Your task to perform on an android device: Open the SMS app Image 0: 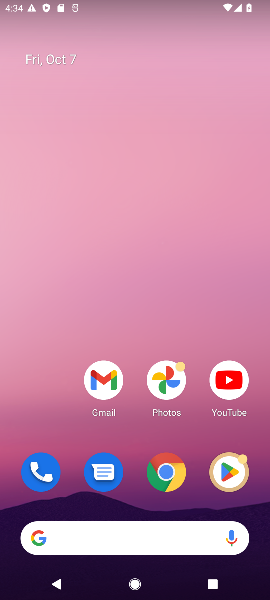
Step 0: click (102, 473)
Your task to perform on an android device: Open the SMS app Image 1: 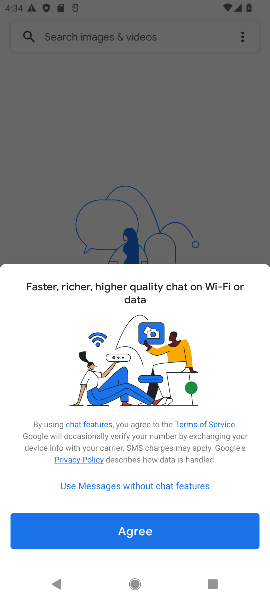
Step 1: click (127, 536)
Your task to perform on an android device: Open the SMS app Image 2: 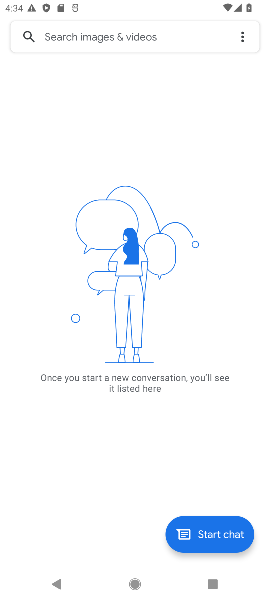
Step 2: click (132, 585)
Your task to perform on an android device: Open the SMS app Image 3: 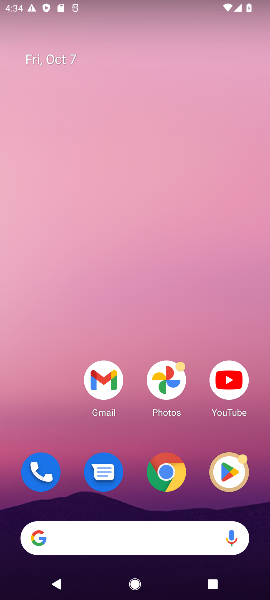
Step 3: click (236, 475)
Your task to perform on an android device: Open the SMS app Image 4: 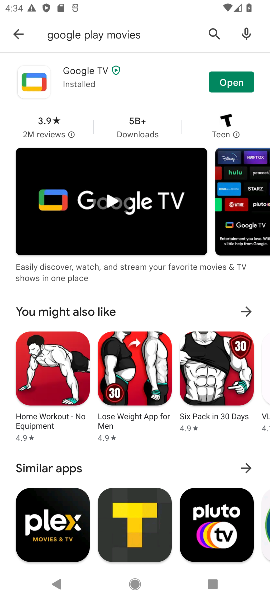
Step 4: click (213, 34)
Your task to perform on an android device: Open the SMS app Image 5: 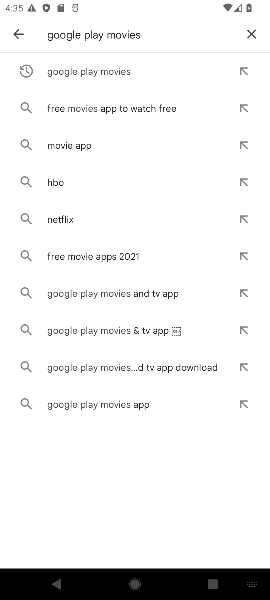
Step 5: click (254, 37)
Your task to perform on an android device: Open the SMS app Image 6: 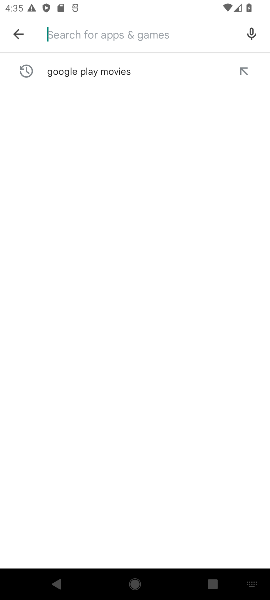
Step 6: type "sms"
Your task to perform on an android device: Open the SMS app Image 7: 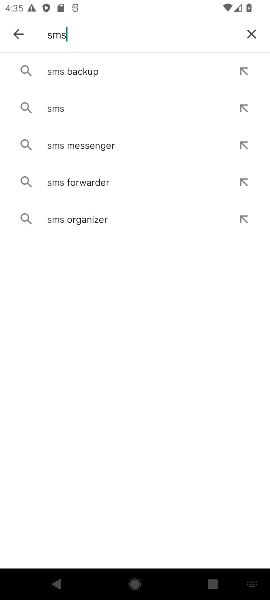
Step 7: click (138, 106)
Your task to perform on an android device: Open the SMS app Image 8: 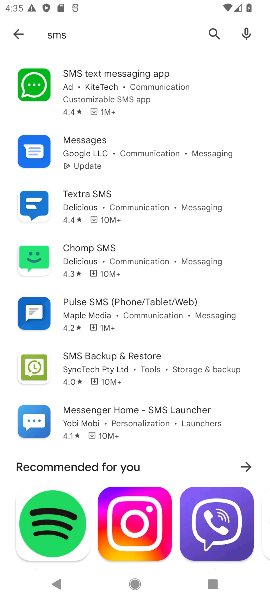
Step 8: click (108, 90)
Your task to perform on an android device: Open the SMS app Image 9: 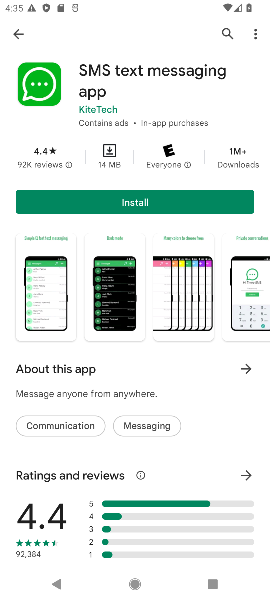
Step 9: task complete